Your task to perform on an android device: Go to privacy settings Image 0: 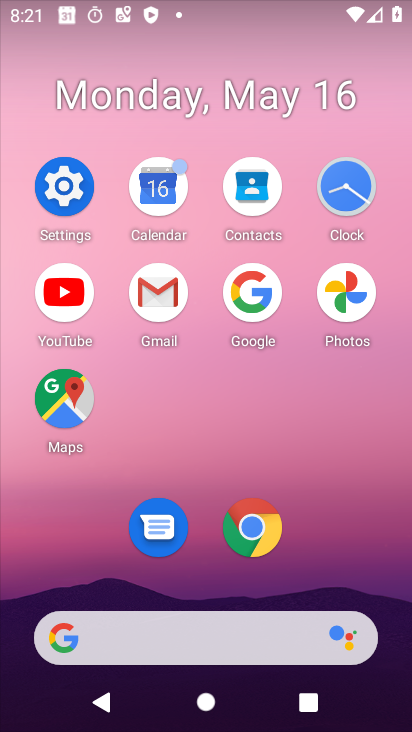
Step 0: click (67, 180)
Your task to perform on an android device: Go to privacy settings Image 1: 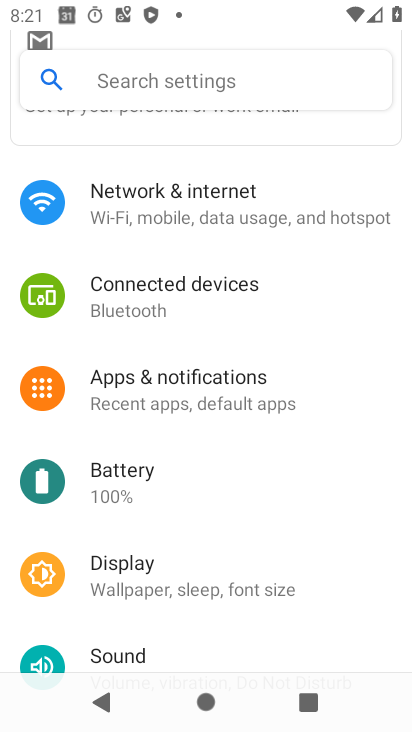
Step 1: drag from (260, 541) to (282, 156)
Your task to perform on an android device: Go to privacy settings Image 2: 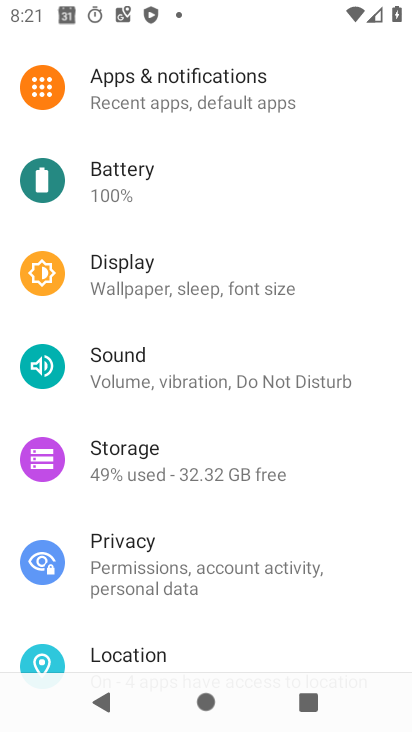
Step 2: click (197, 540)
Your task to perform on an android device: Go to privacy settings Image 3: 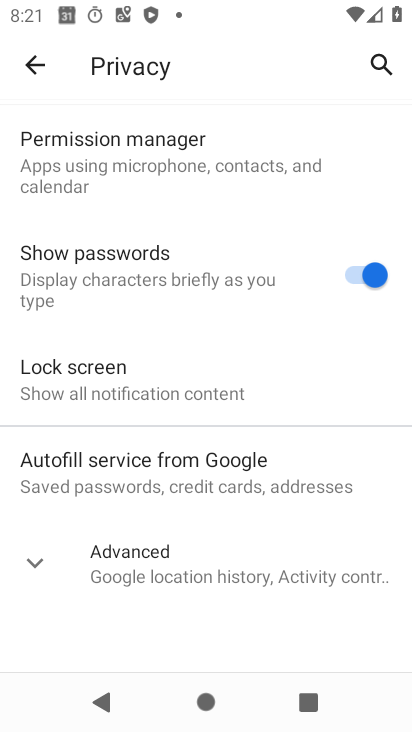
Step 3: task complete